Your task to perform on an android device: turn off notifications settings in the gmail app Image 0: 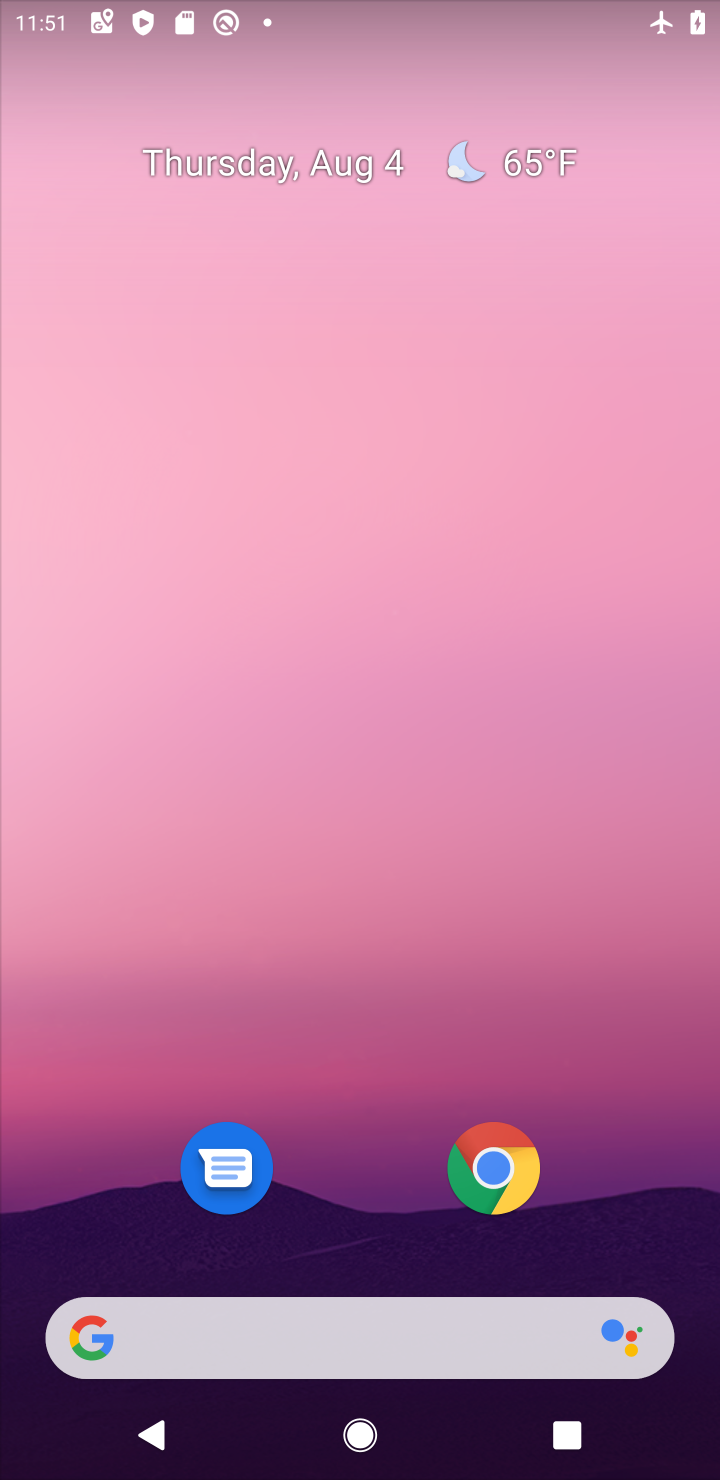
Step 0: drag from (678, 1254) to (350, 36)
Your task to perform on an android device: turn off notifications settings in the gmail app Image 1: 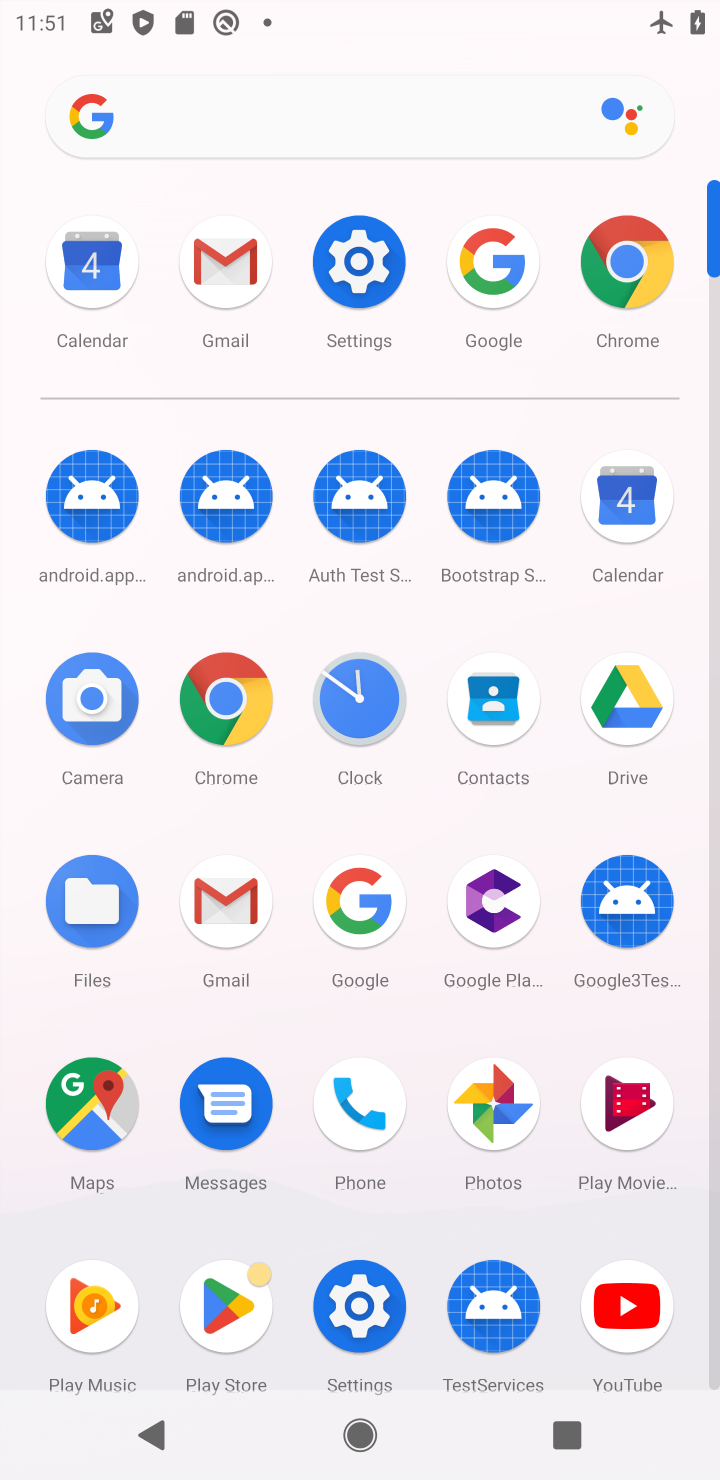
Step 1: click (223, 893)
Your task to perform on an android device: turn off notifications settings in the gmail app Image 2: 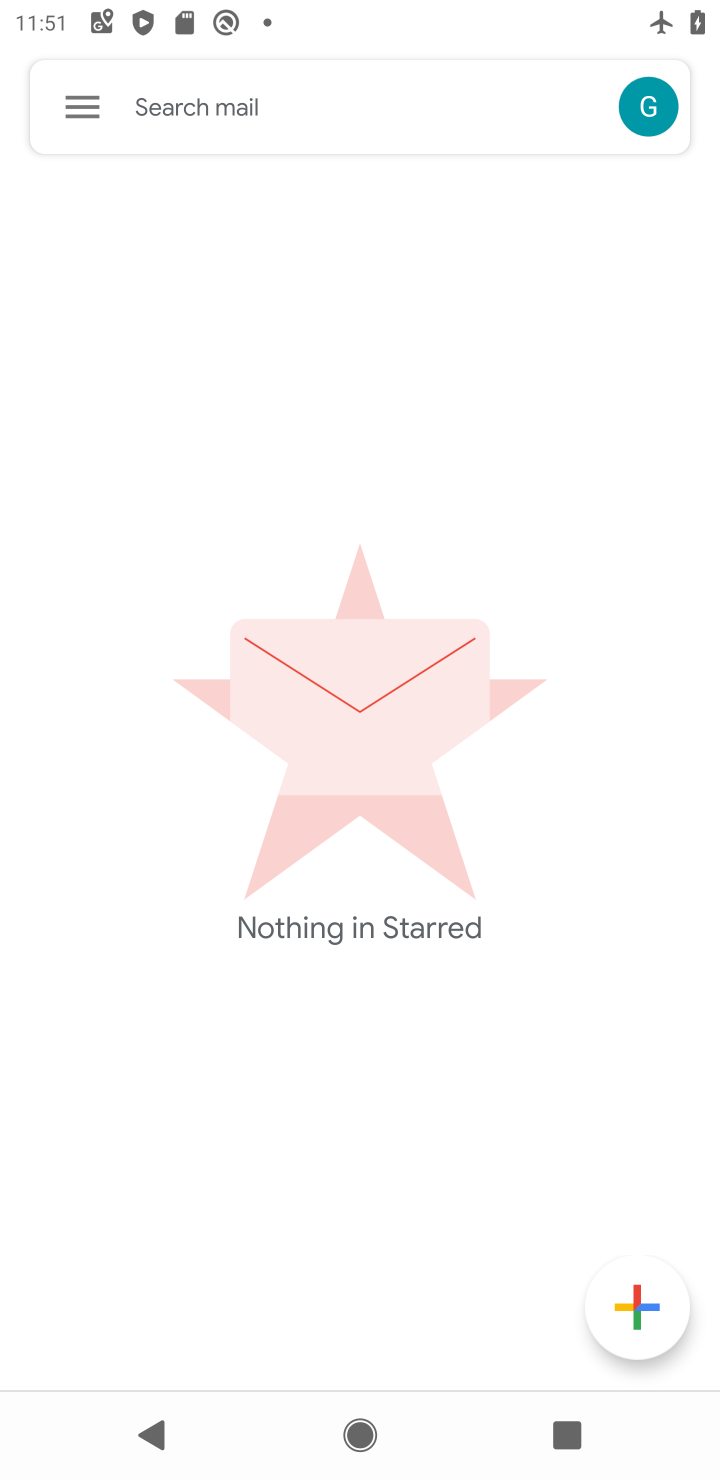
Step 2: click (47, 99)
Your task to perform on an android device: turn off notifications settings in the gmail app Image 3: 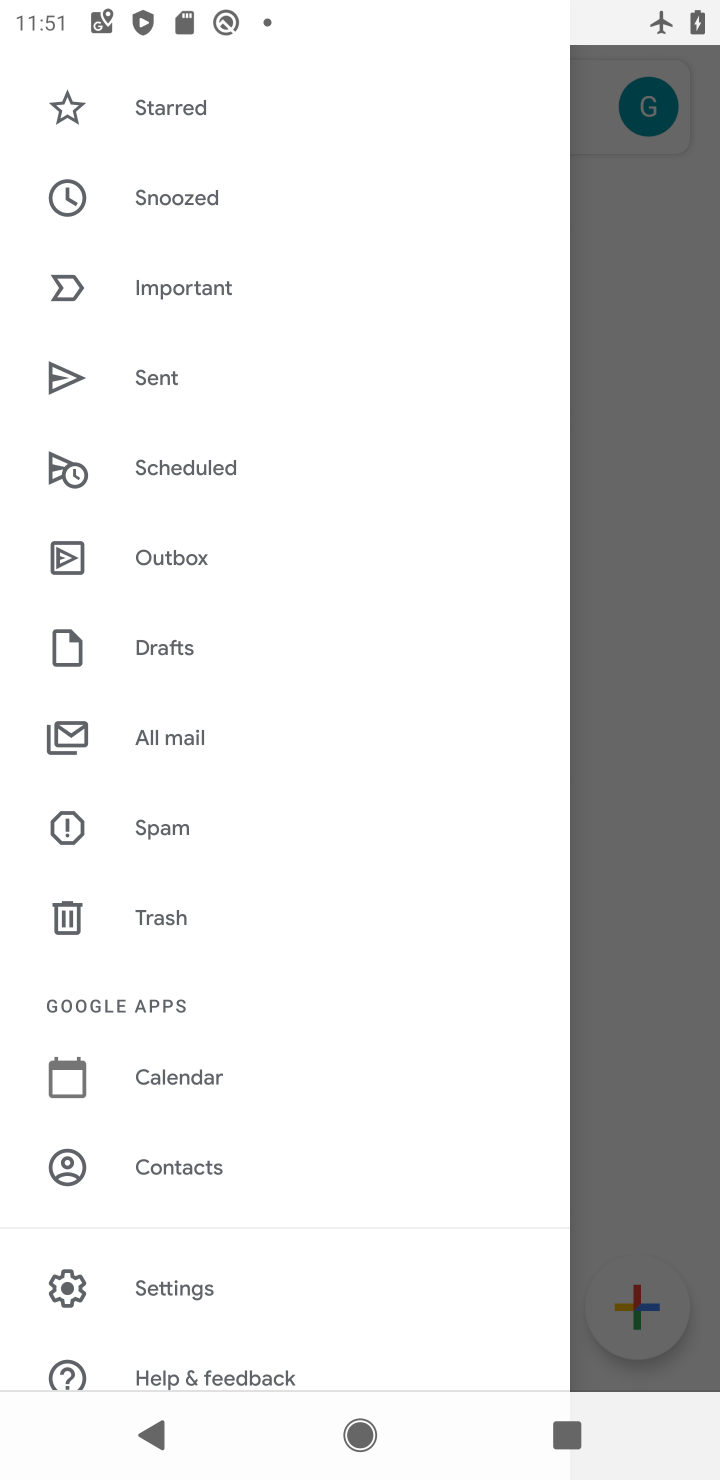
Step 3: click (157, 1312)
Your task to perform on an android device: turn off notifications settings in the gmail app Image 4: 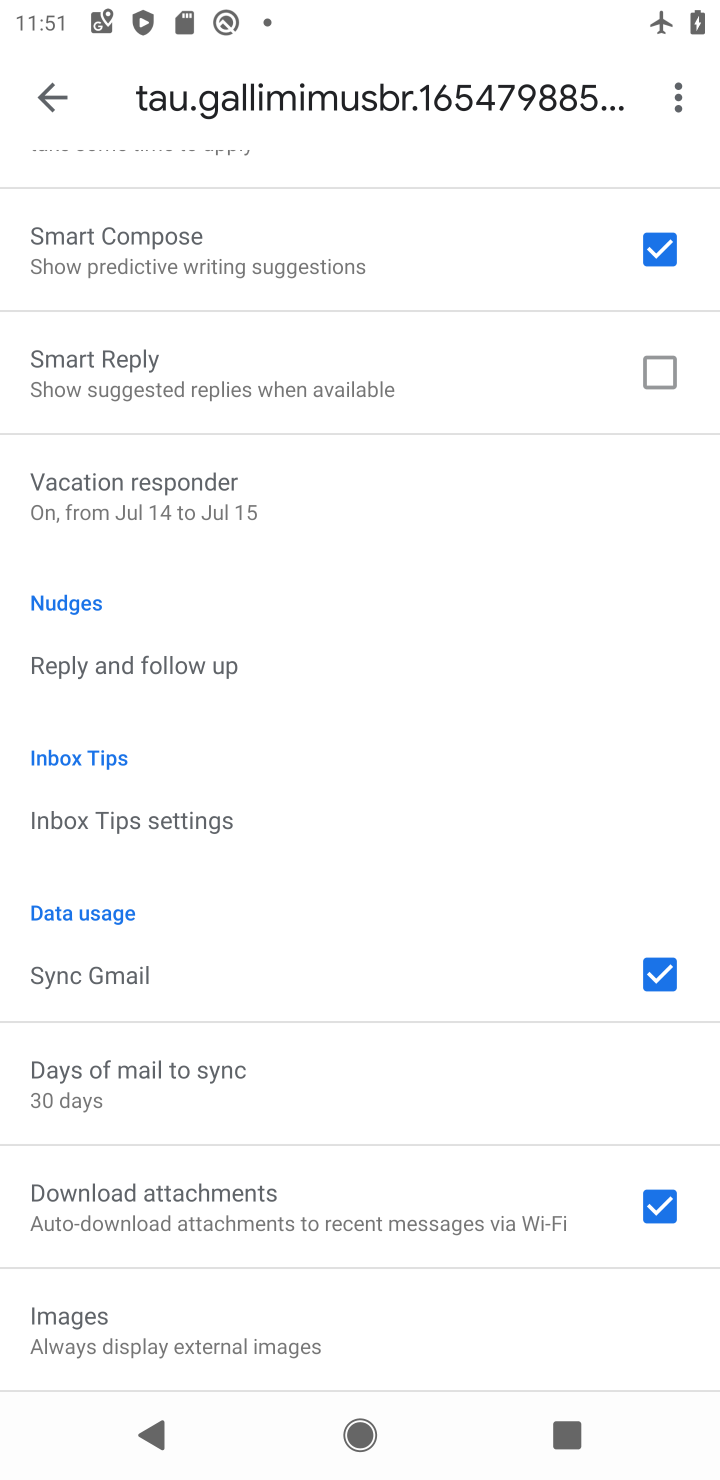
Step 4: drag from (194, 254) to (427, 1476)
Your task to perform on an android device: turn off notifications settings in the gmail app Image 5: 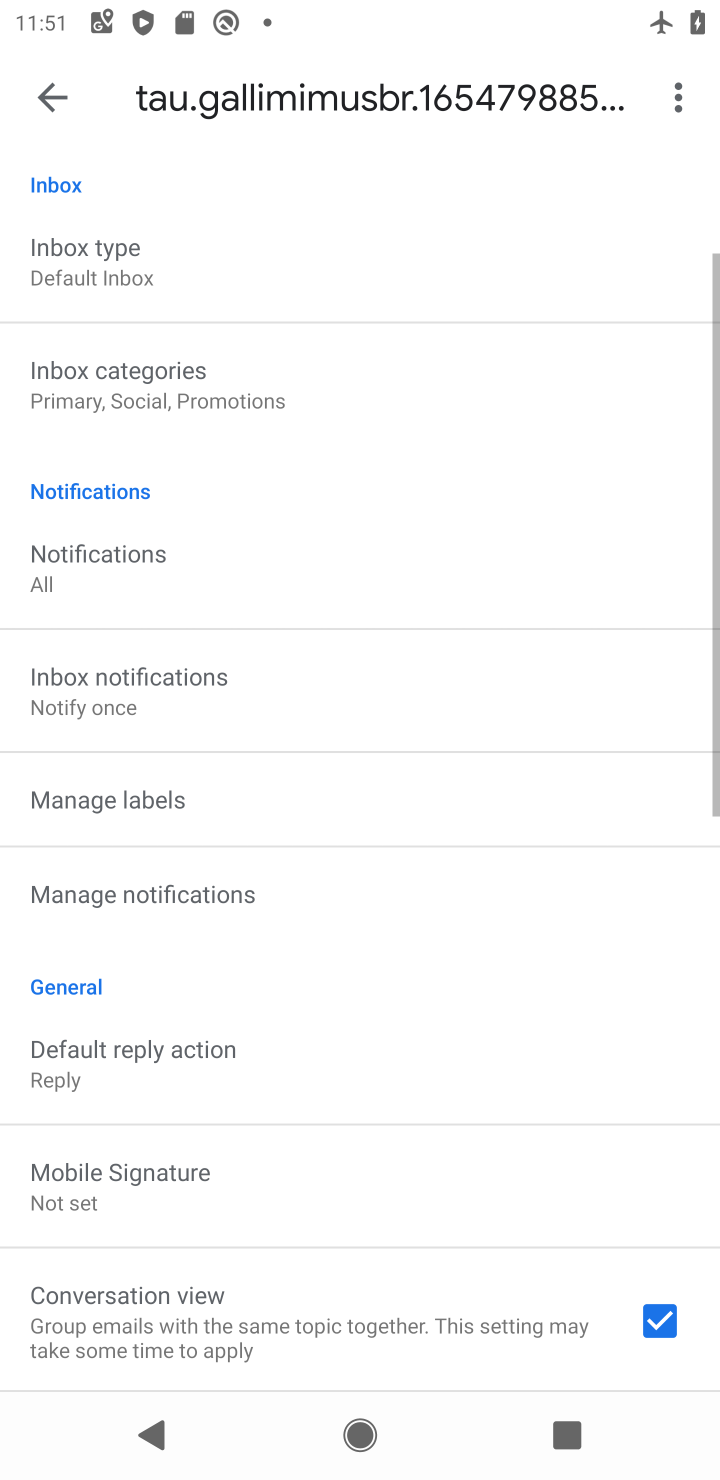
Step 5: drag from (292, 289) to (401, 1408)
Your task to perform on an android device: turn off notifications settings in the gmail app Image 6: 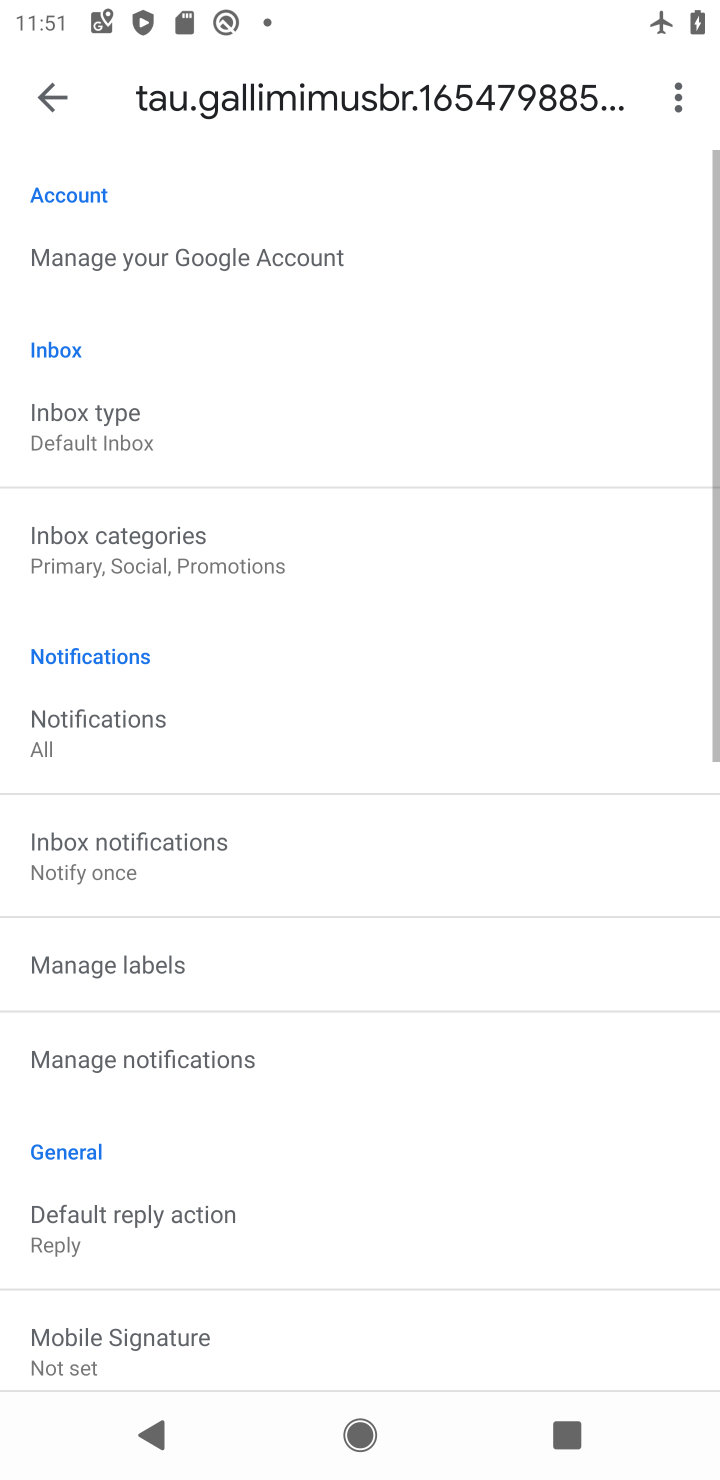
Step 6: click (57, 615)
Your task to perform on an android device: turn off notifications settings in the gmail app Image 7: 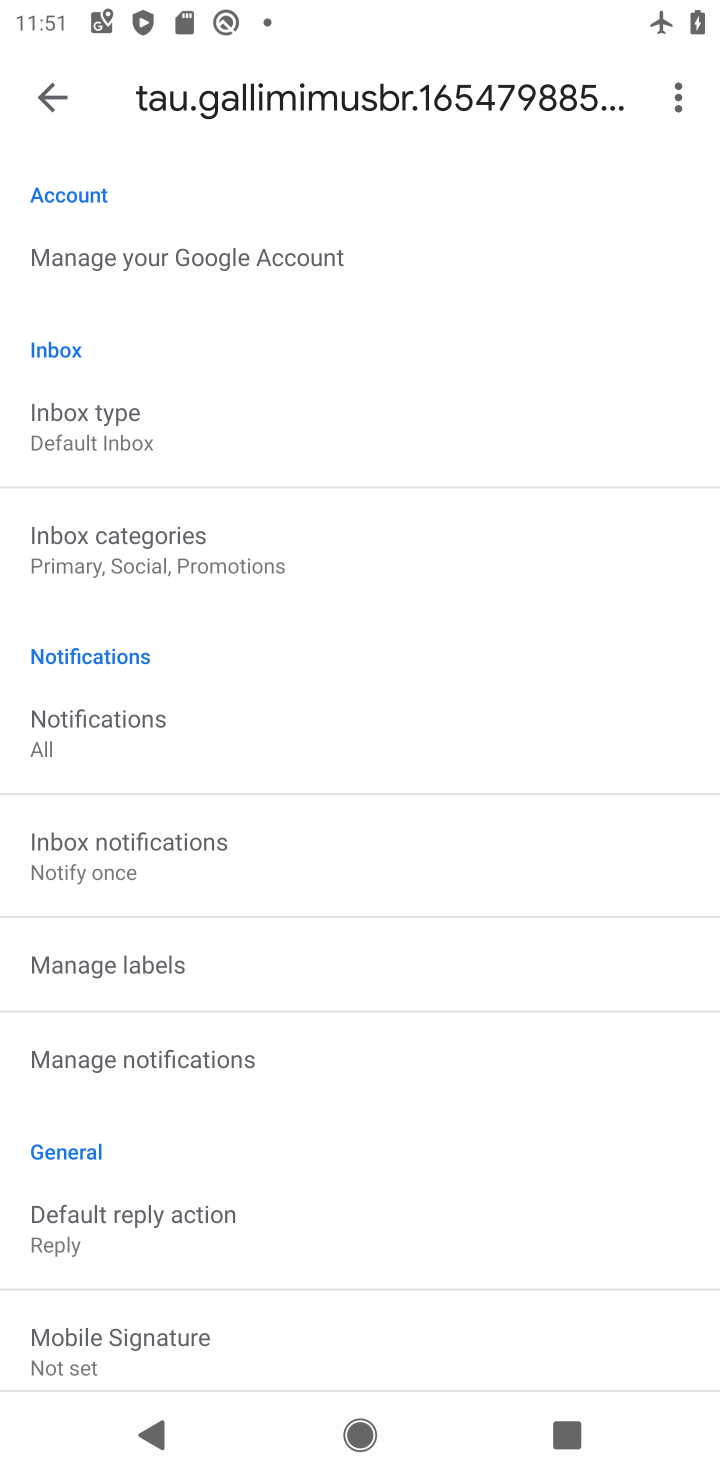
Step 7: click (97, 724)
Your task to perform on an android device: turn off notifications settings in the gmail app Image 8: 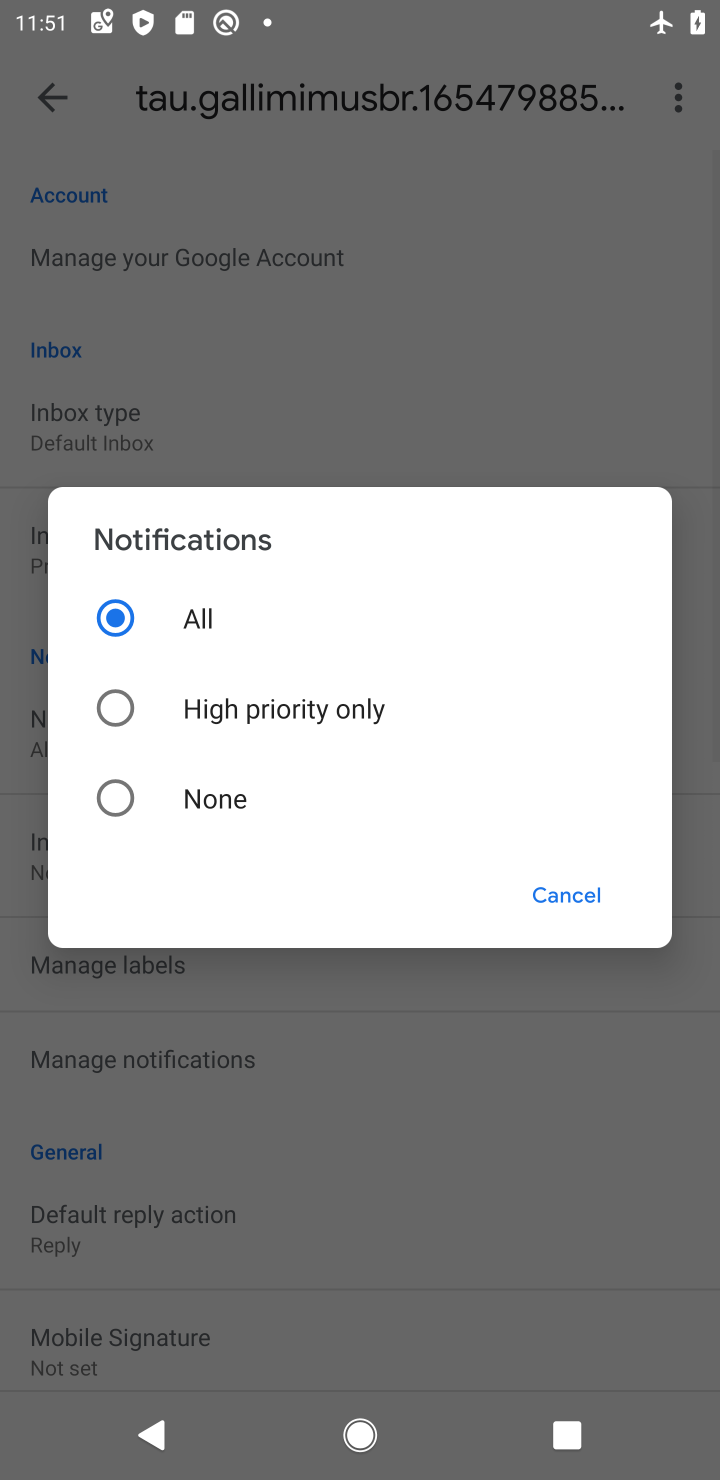
Step 8: click (135, 809)
Your task to perform on an android device: turn off notifications settings in the gmail app Image 9: 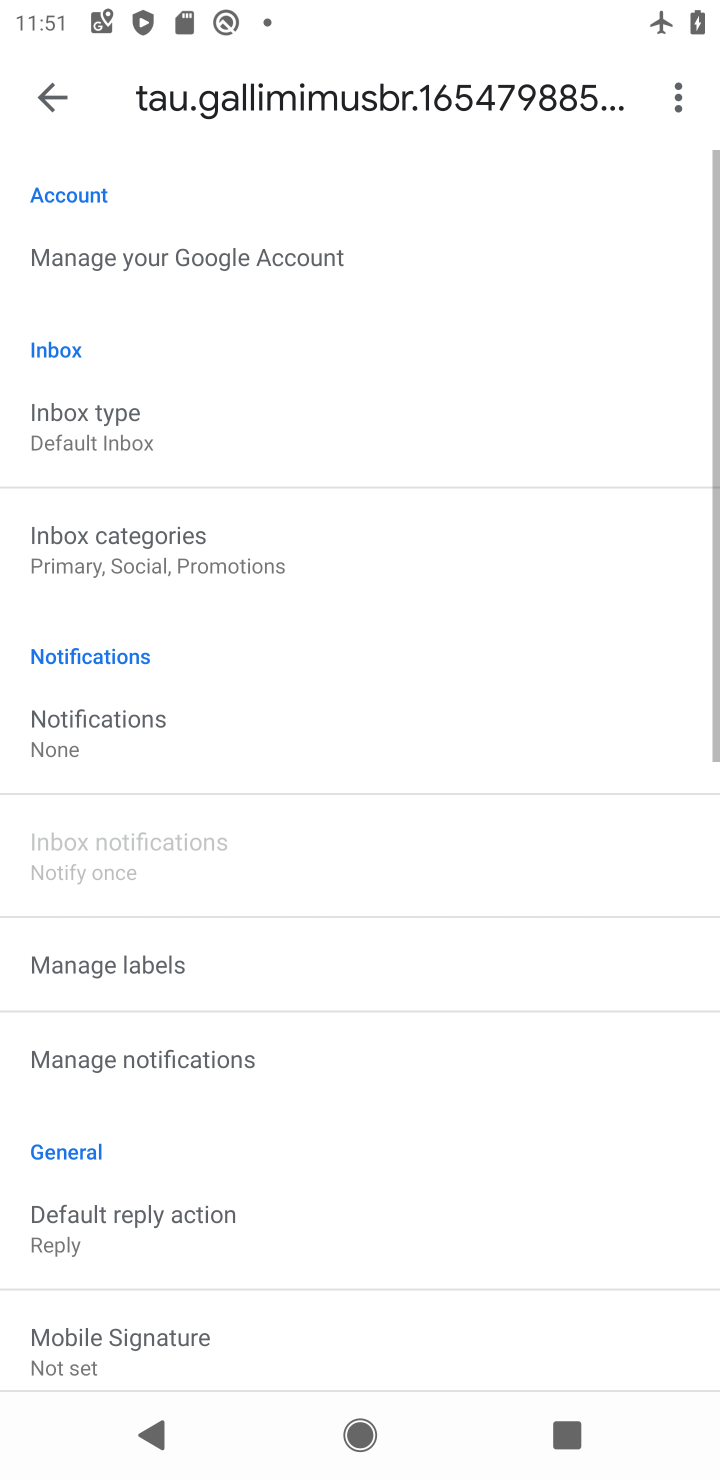
Step 9: task complete